Your task to perform on an android device: turn notification dots off Image 0: 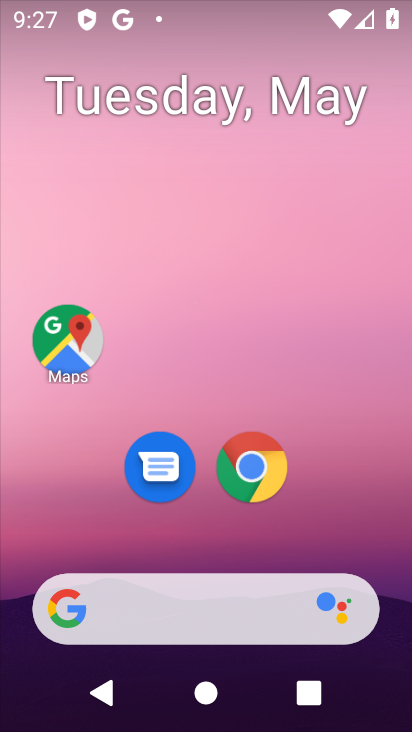
Step 0: drag from (363, 562) to (247, 11)
Your task to perform on an android device: turn notification dots off Image 1: 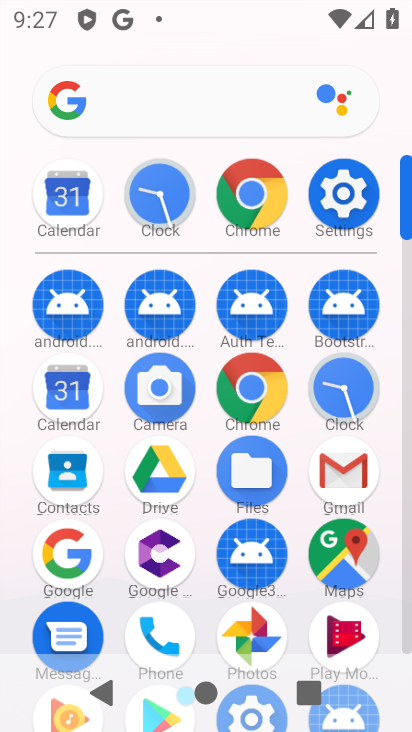
Step 1: drag from (13, 593) to (17, 219)
Your task to perform on an android device: turn notification dots off Image 2: 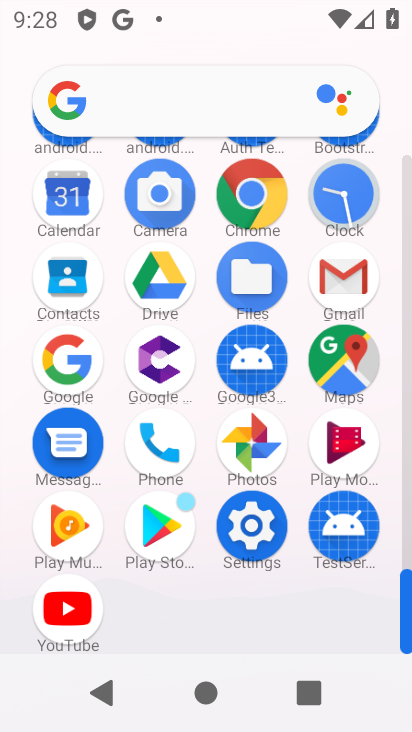
Step 2: click (249, 523)
Your task to perform on an android device: turn notification dots off Image 3: 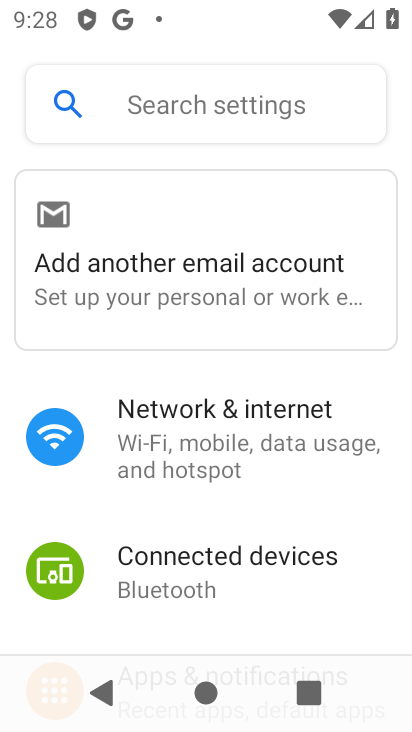
Step 3: drag from (268, 607) to (250, 147)
Your task to perform on an android device: turn notification dots off Image 4: 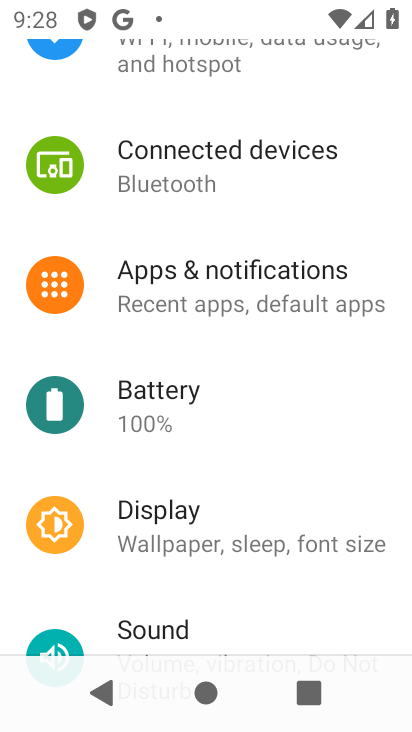
Step 4: click (233, 290)
Your task to perform on an android device: turn notification dots off Image 5: 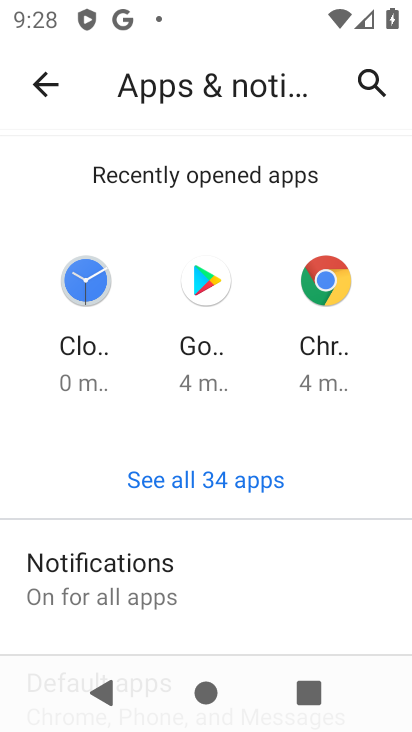
Step 5: drag from (252, 604) to (234, 186)
Your task to perform on an android device: turn notification dots off Image 6: 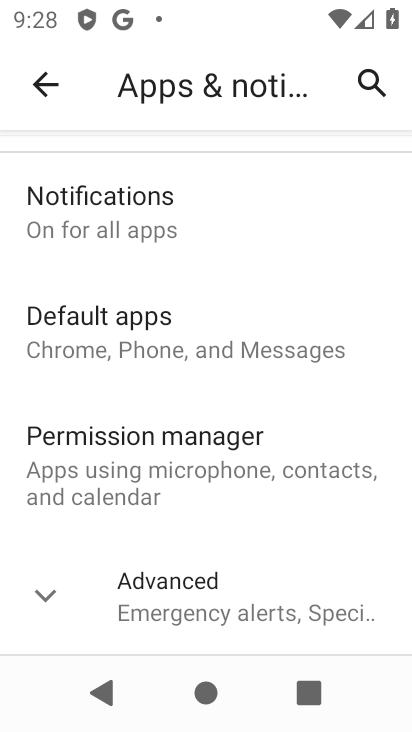
Step 6: drag from (241, 592) to (237, 241)
Your task to perform on an android device: turn notification dots off Image 7: 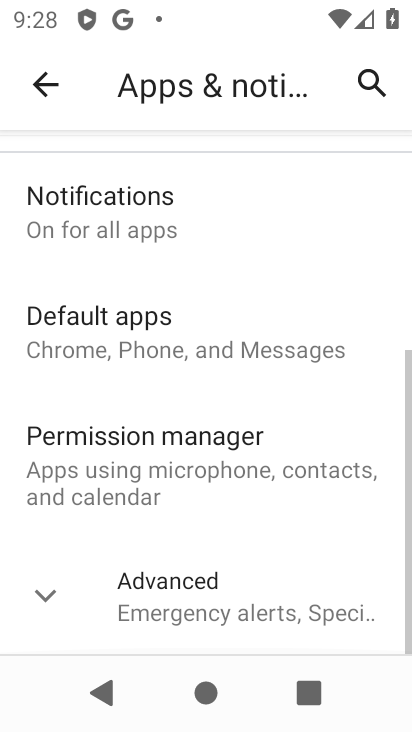
Step 7: click (34, 600)
Your task to perform on an android device: turn notification dots off Image 8: 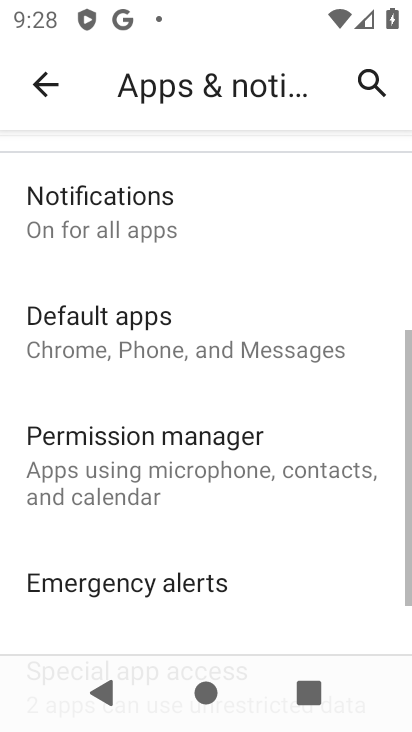
Step 8: drag from (275, 598) to (287, 190)
Your task to perform on an android device: turn notification dots off Image 9: 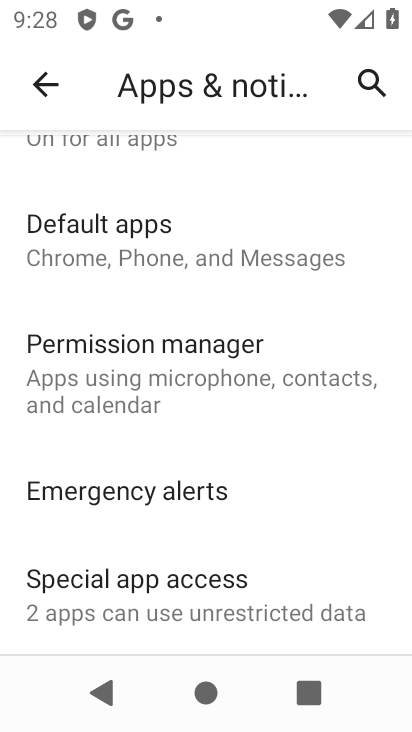
Step 9: drag from (250, 215) to (245, 567)
Your task to perform on an android device: turn notification dots off Image 10: 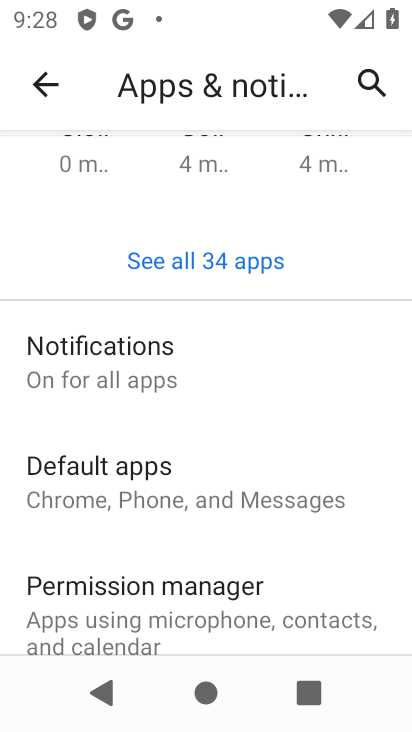
Step 10: click (187, 374)
Your task to perform on an android device: turn notification dots off Image 11: 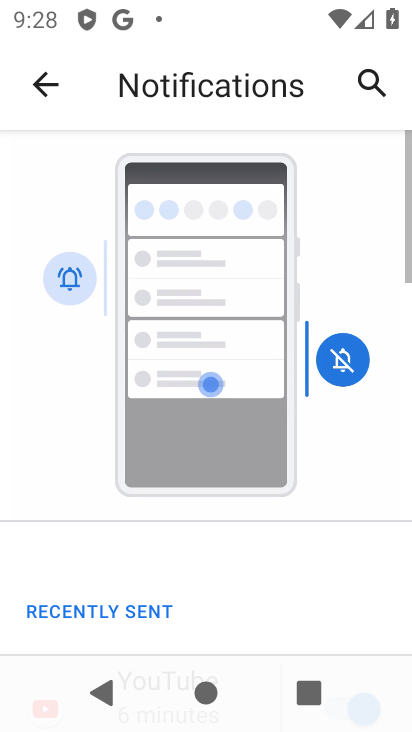
Step 11: drag from (237, 588) to (224, 143)
Your task to perform on an android device: turn notification dots off Image 12: 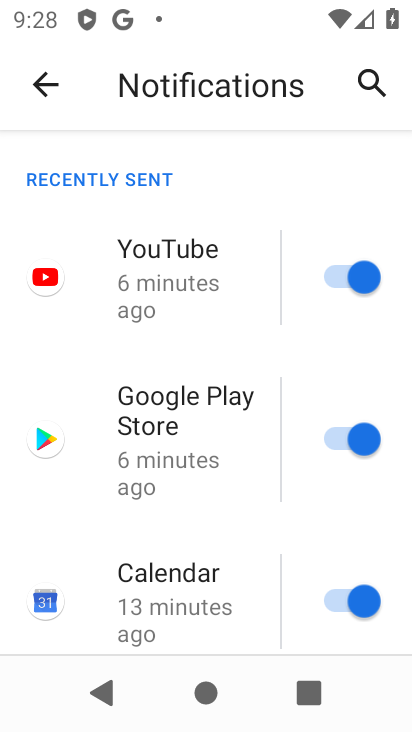
Step 12: drag from (198, 599) to (215, 175)
Your task to perform on an android device: turn notification dots off Image 13: 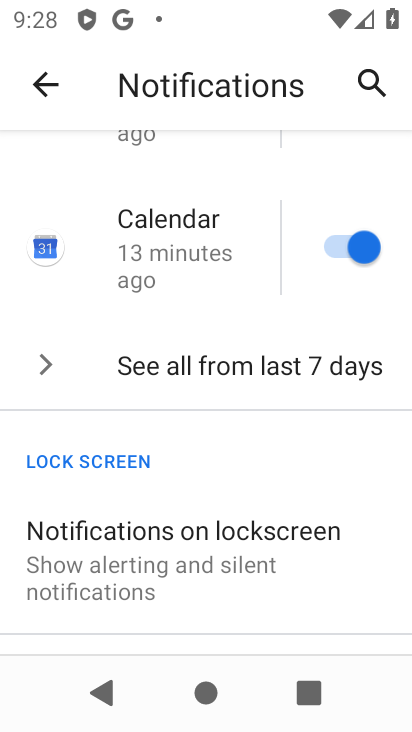
Step 13: drag from (217, 592) to (250, 183)
Your task to perform on an android device: turn notification dots off Image 14: 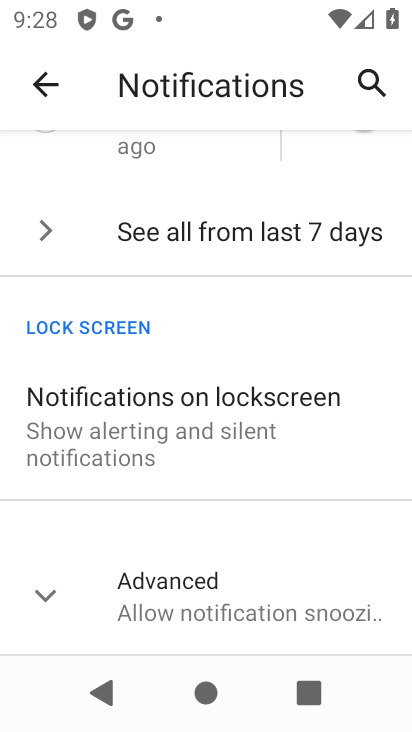
Step 14: click (57, 589)
Your task to perform on an android device: turn notification dots off Image 15: 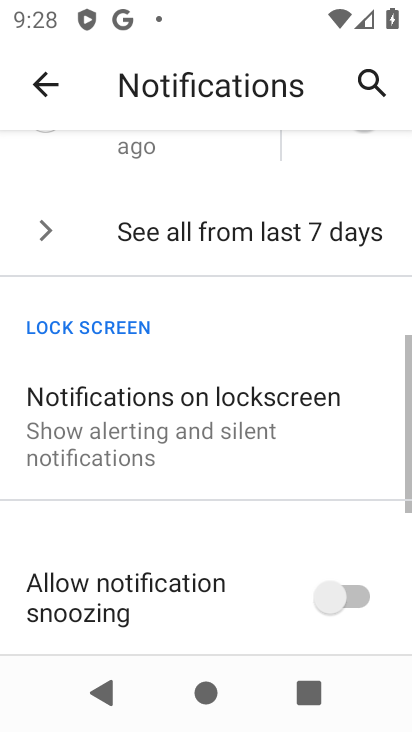
Step 15: drag from (256, 575) to (244, 171)
Your task to perform on an android device: turn notification dots off Image 16: 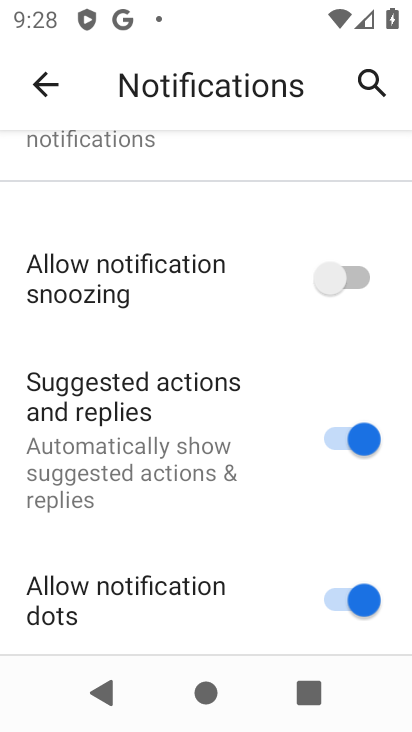
Step 16: click (338, 605)
Your task to perform on an android device: turn notification dots off Image 17: 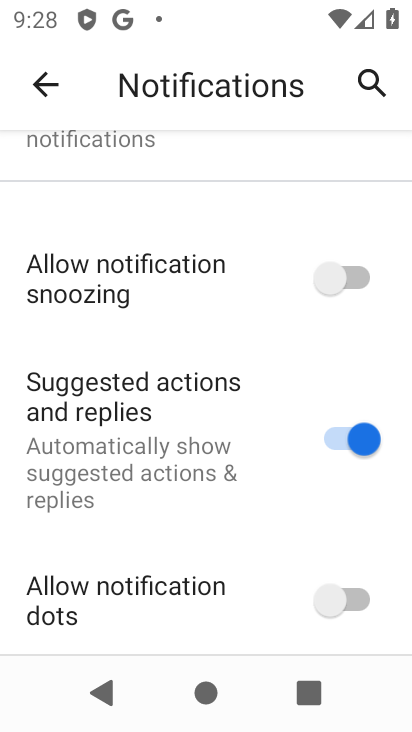
Step 17: task complete